Your task to perform on an android device: turn on translation in the chrome app Image 0: 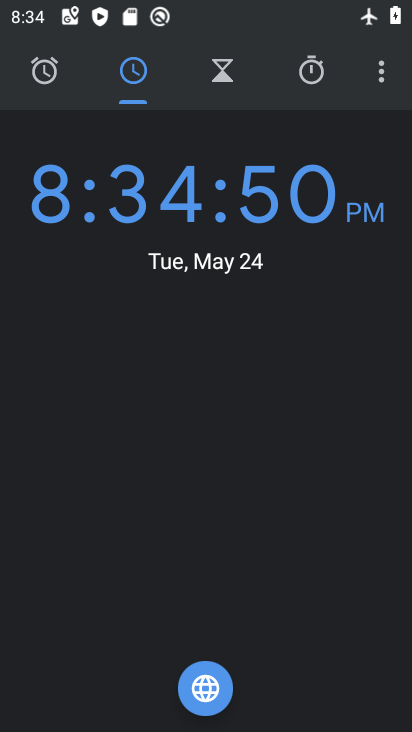
Step 0: press back button
Your task to perform on an android device: turn on translation in the chrome app Image 1: 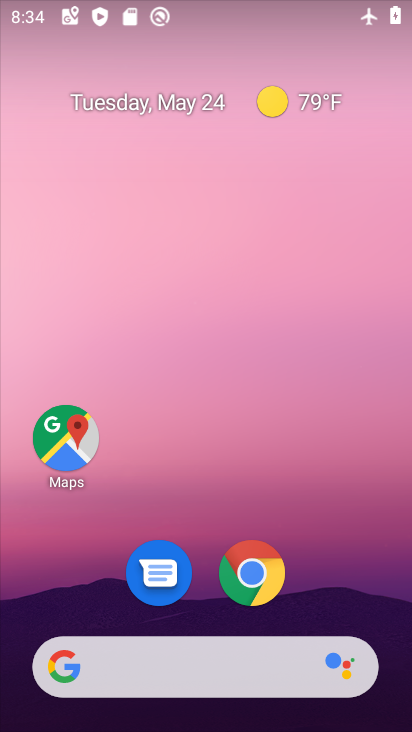
Step 1: drag from (284, 597) to (221, 212)
Your task to perform on an android device: turn on translation in the chrome app Image 2: 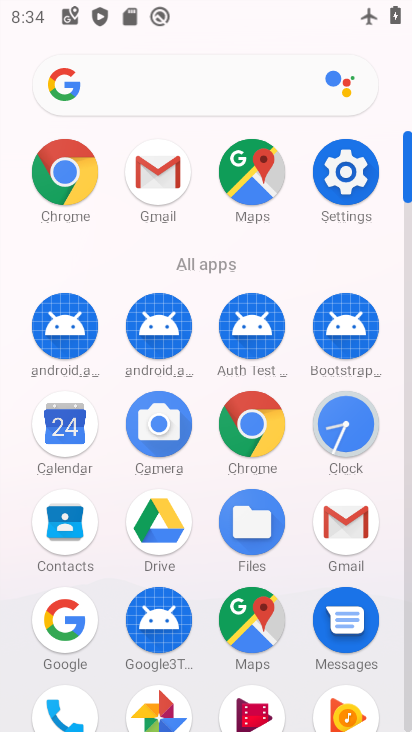
Step 2: click (69, 162)
Your task to perform on an android device: turn on translation in the chrome app Image 3: 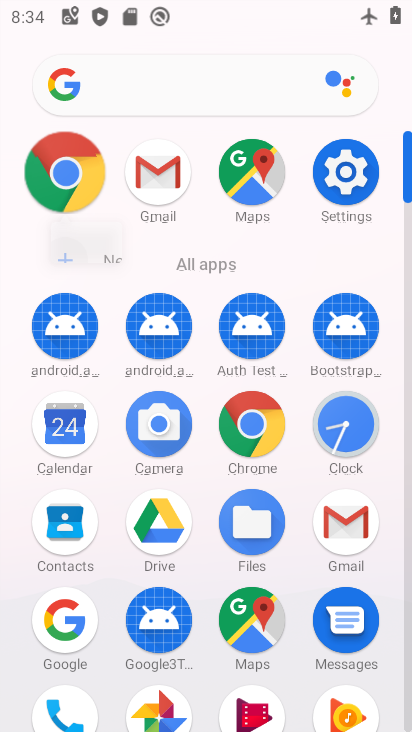
Step 3: click (68, 161)
Your task to perform on an android device: turn on translation in the chrome app Image 4: 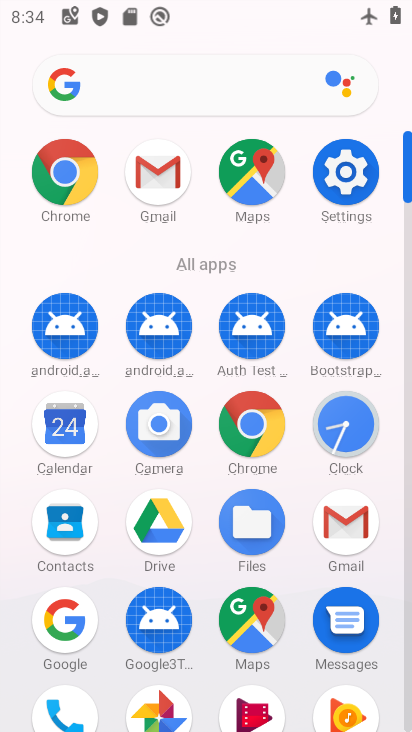
Step 4: click (72, 158)
Your task to perform on an android device: turn on translation in the chrome app Image 5: 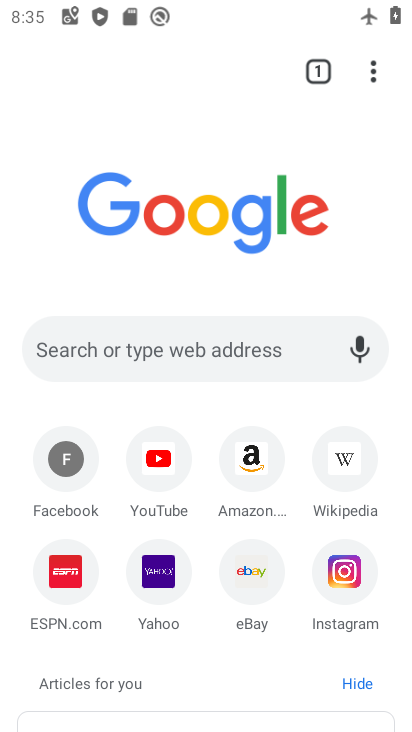
Step 5: drag from (371, 67) to (107, 612)
Your task to perform on an android device: turn on translation in the chrome app Image 6: 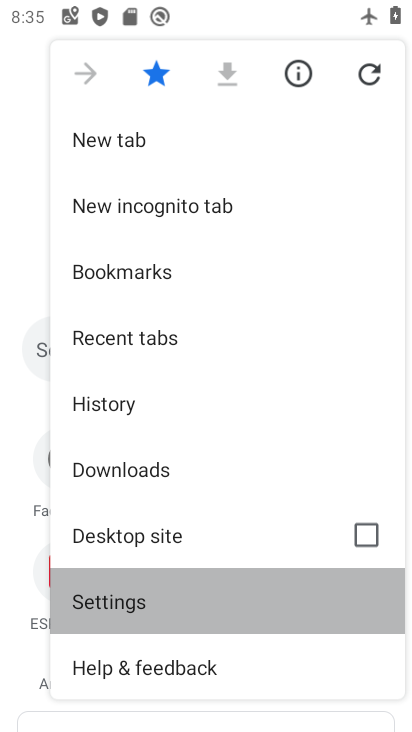
Step 6: click (108, 611)
Your task to perform on an android device: turn on translation in the chrome app Image 7: 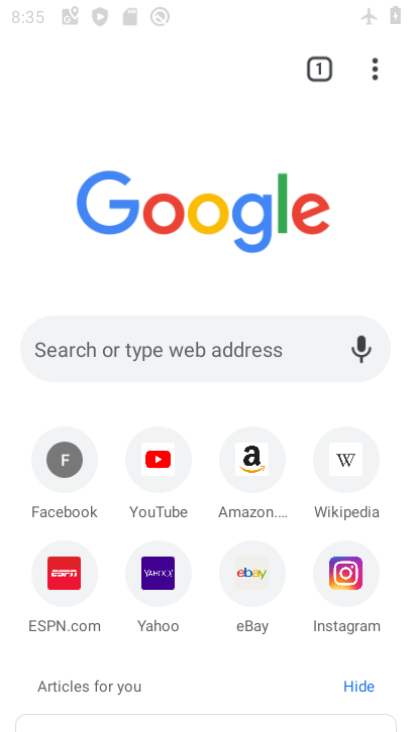
Step 7: click (109, 610)
Your task to perform on an android device: turn on translation in the chrome app Image 8: 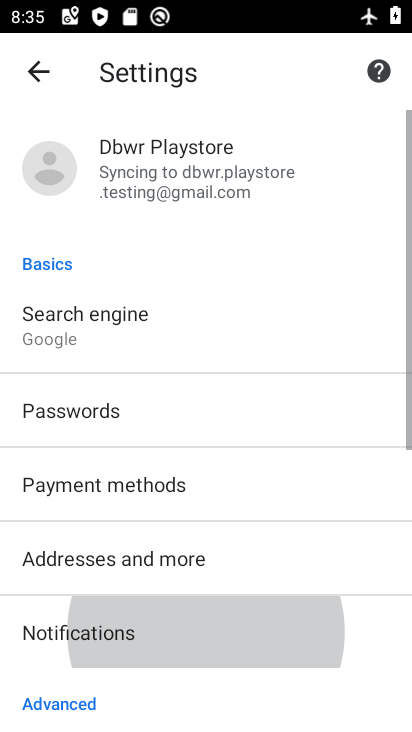
Step 8: click (110, 609)
Your task to perform on an android device: turn on translation in the chrome app Image 9: 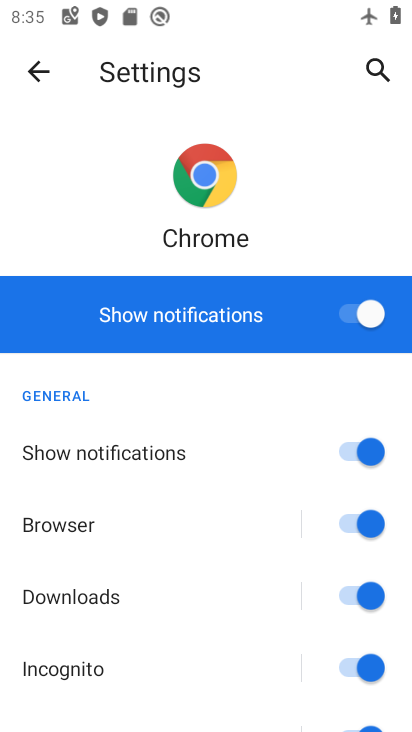
Step 9: click (40, 77)
Your task to perform on an android device: turn on translation in the chrome app Image 10: 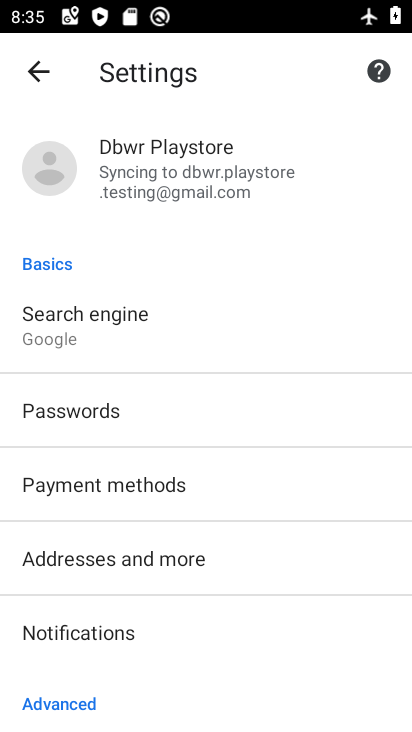
Step 10: drag from (170, 578) to (164, 235)
Your task to perform on an android device: turn on translation in the chrome app Image 11: 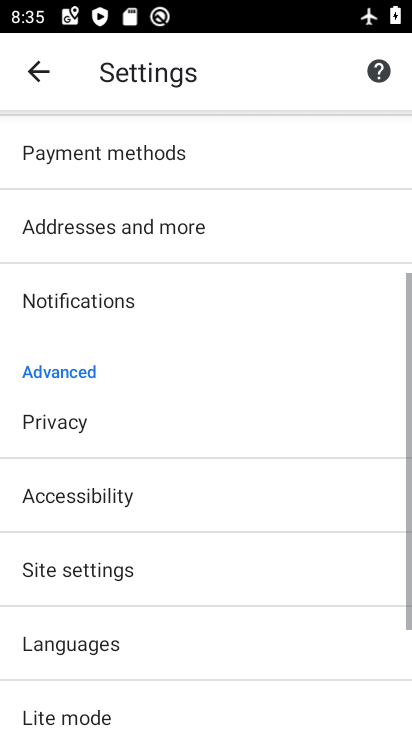
Step 11: drag from (235, 500) to (306, 173)
Your task to perform on an android device: turn on translation in the chrome app Image 12: 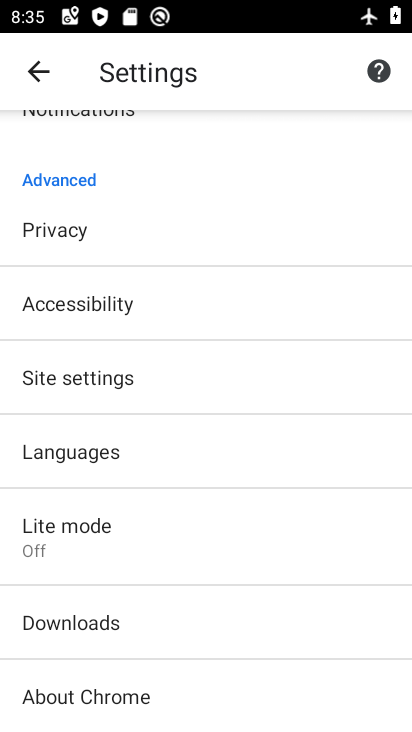
Step 12: click (66, 453)
Your task to perform on an android device: turn on translation in the chrome app Image 13: 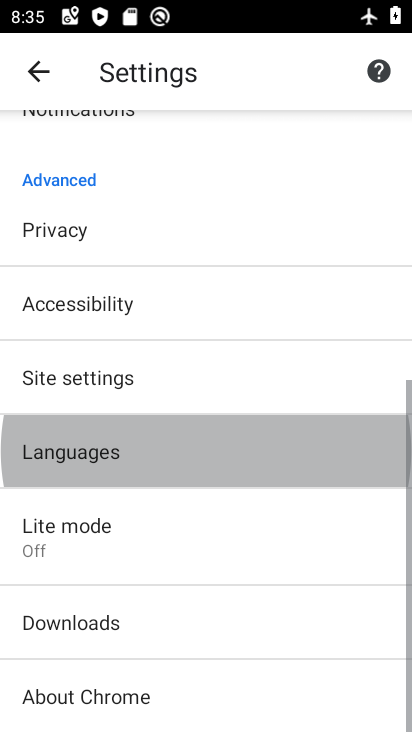
Step 13: click (67, 454)
Your task to perform on an android device: turn on translation in the chrome app Image 14: 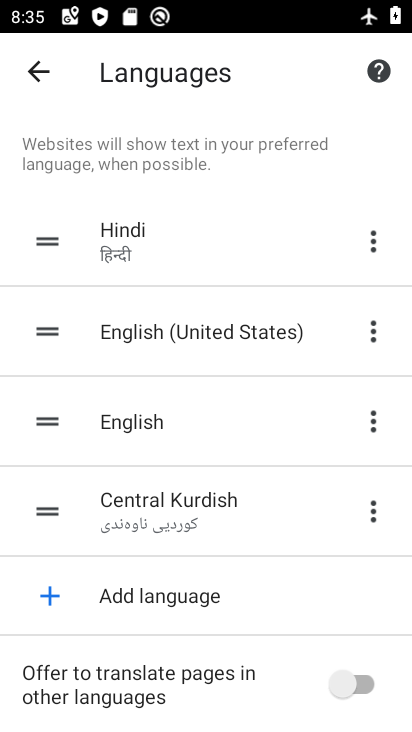
Step 14: click (353, 676)
Your task to perform on an android device: turn on translation in the chrome app Image 15: 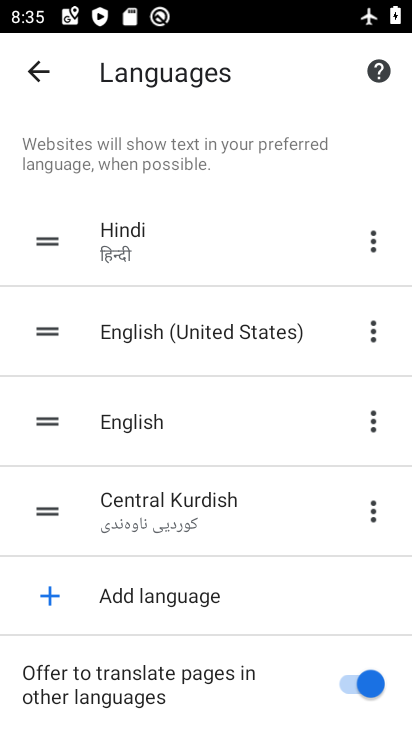
Step 15: task complete